Your task to perform on an android device: change notification settings in the gmail app Image 0: 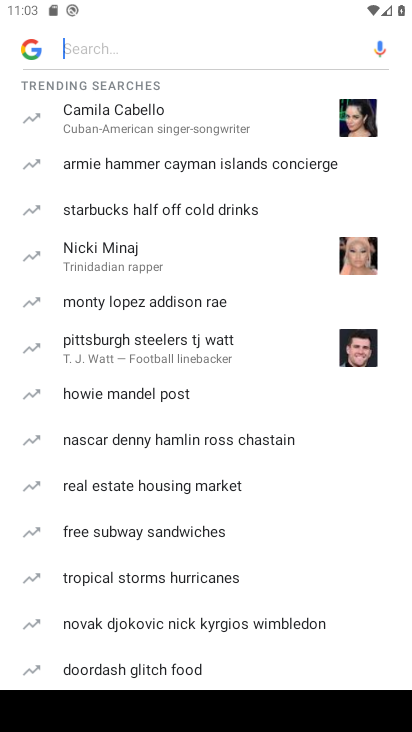
Step 0: press home button
Your task to perform on an android device: change notification settings in the gmail app Image 1: 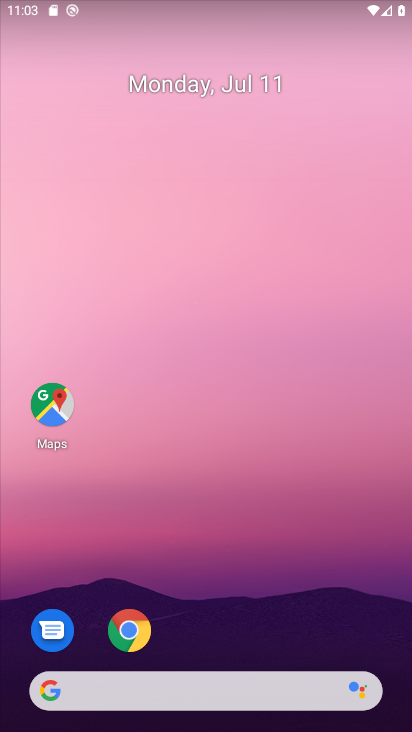
Step 1: drag from (204, 646) to (227, 0)
Your task to perform on an android device: change notification settings in the gmail app Image 2: 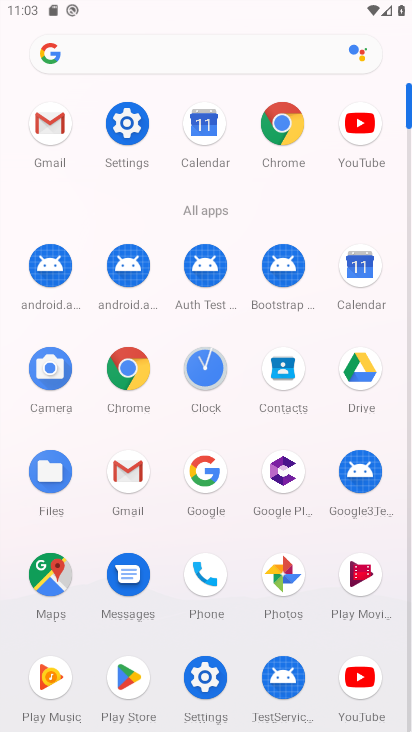
Step 2: click (131, 463)
Your task to perform on an android device: change notification settings in the gmail app Image 3: 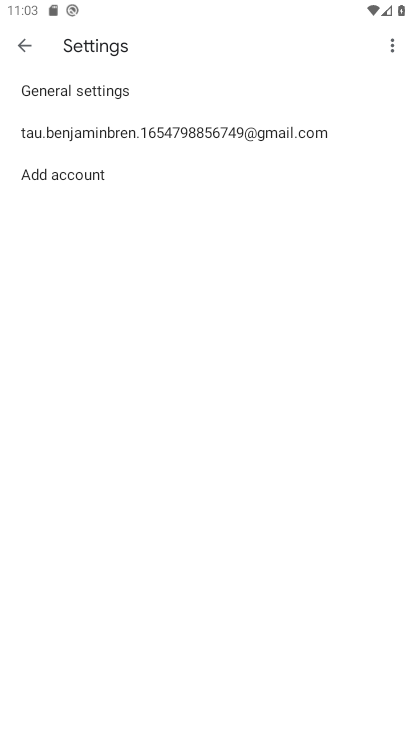
Step 3: click (104, 96)
Your task to perform on an android device: change notification settings in the gmail app Image 4: 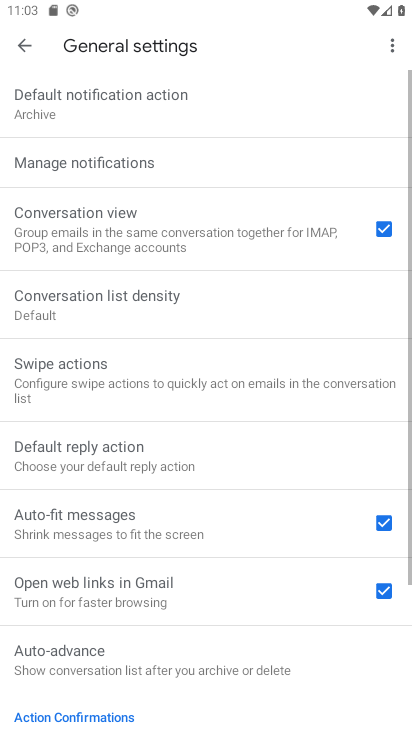
Step 4: click (146, 170)
Your task to perform on an android device: change notification settings in the gmail app Image 5: 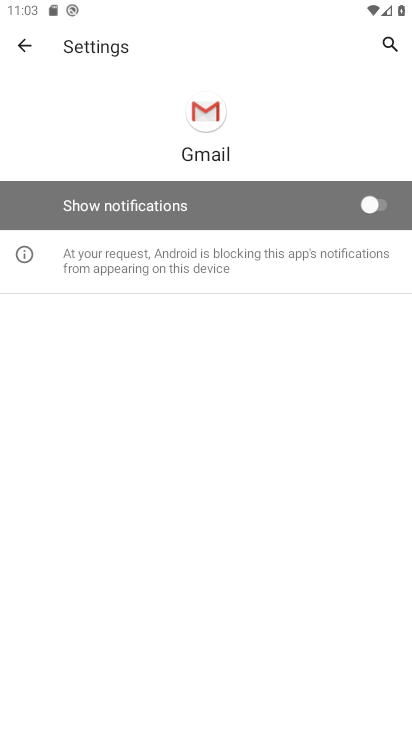
Step 5: click (354, 208)
Your task to perform on an android device: change notification settings in the gmail app Image 6: 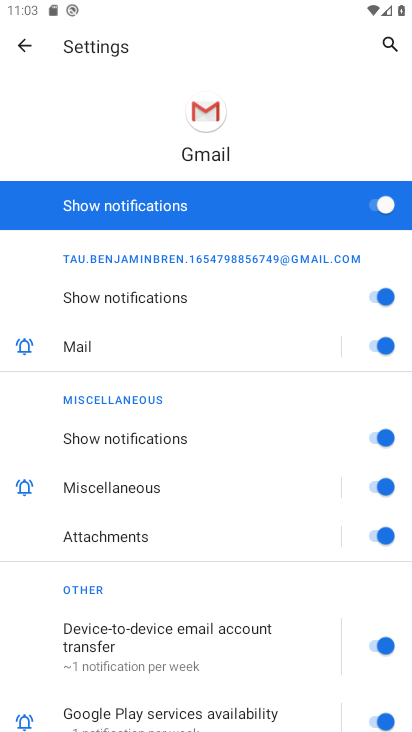
Step 6: task complete